Your task to perform on an android device: Show me popular games on the Play Store Image 0: 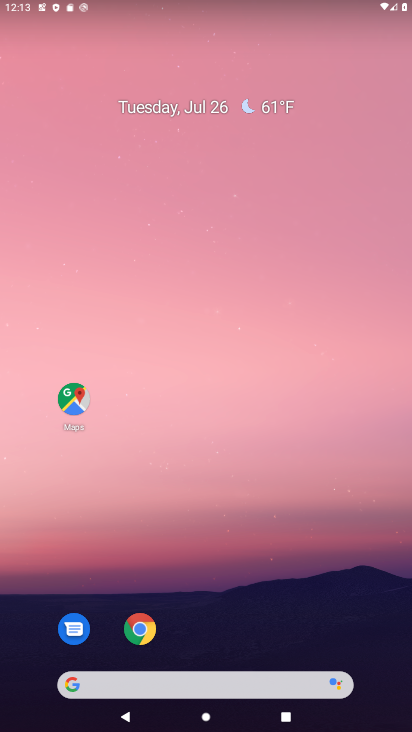
Step 0: drag from (202, 631) to (270, 95)
Your task to perform on an android device: Show me popular games on the Play Store Image 1: 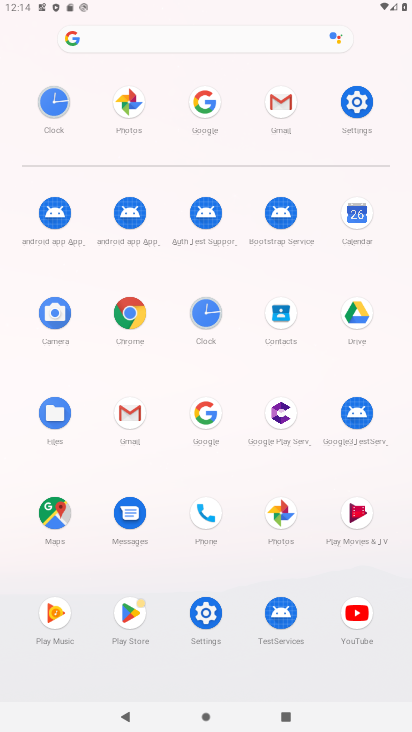
Step 1: click (142, 617)
Your task to perform on an android device: Show me popular games on the Play Store Image 2: 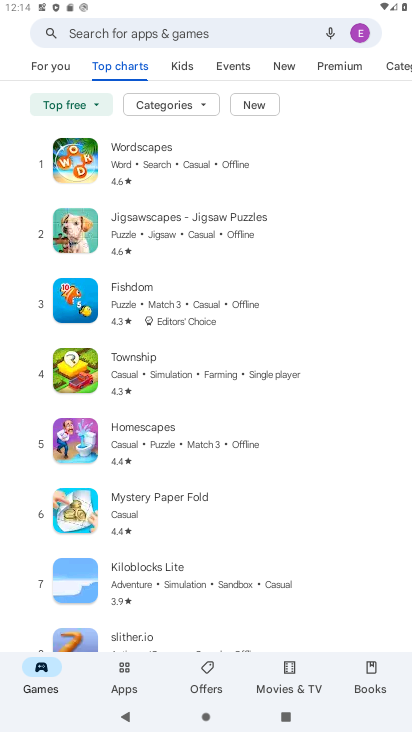
Step 2: task complete